Your task to perform on an android device: What's the weather? Image 0: 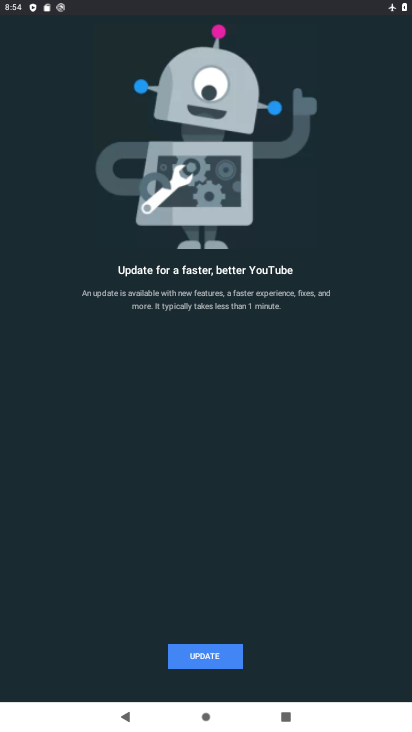
Step 0: press home button
Your task to perform on an android device: What's the weather? Image 1: 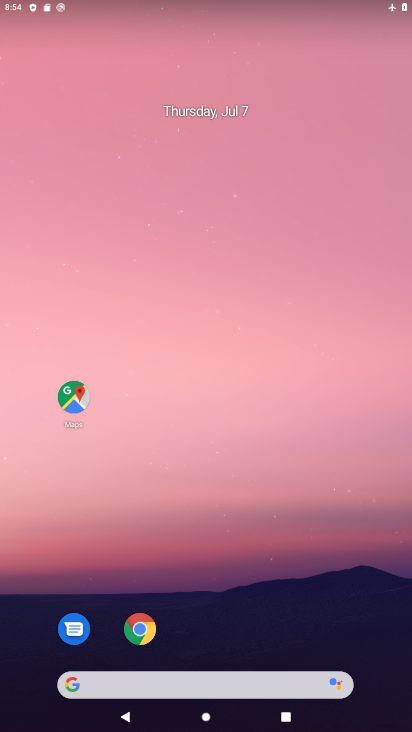
Step 1: click (210, 687)
Your task to perform on an android device: What's the weather? Image 2: 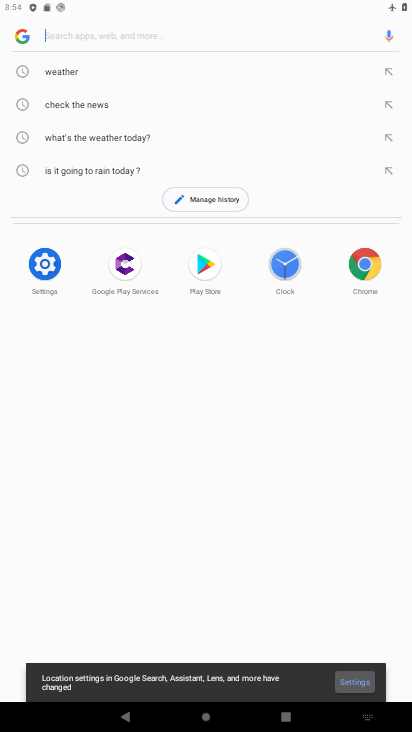
Step 2: click (59, 69)
Your task to perform on an android device: What's the weather? Image 3: 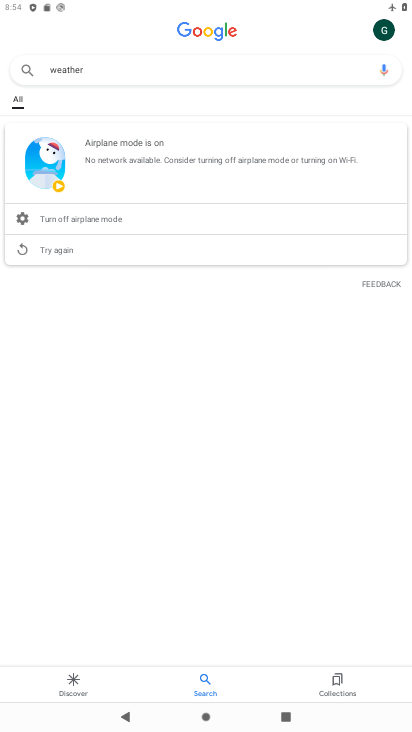
Step 3: task complete